Your task to perform on an android device: Open the map Image 0: 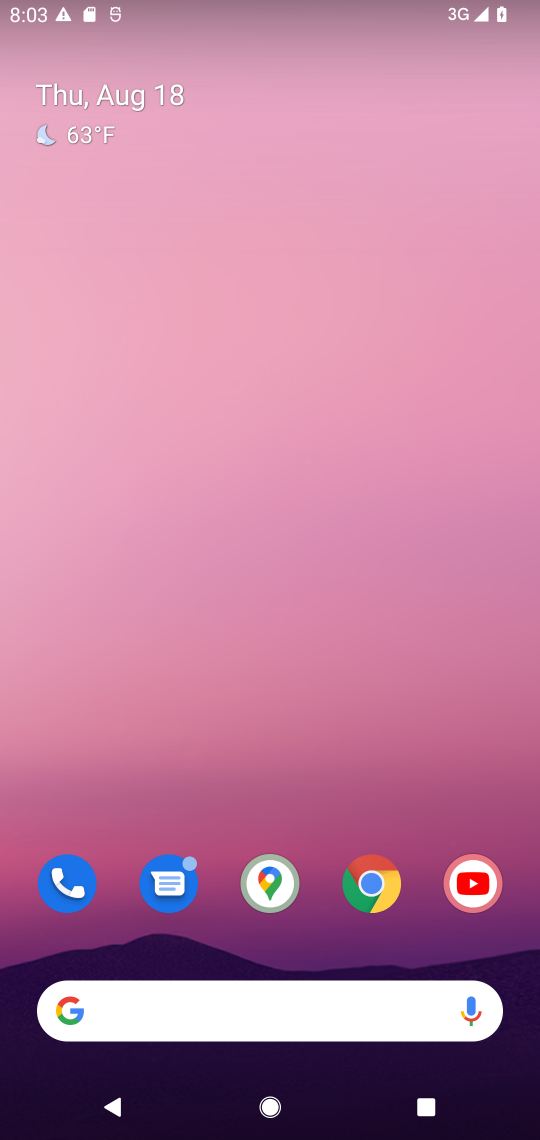
Step 0: click (257, 874)
Your task to perform on an android device: Open the map Image 1: 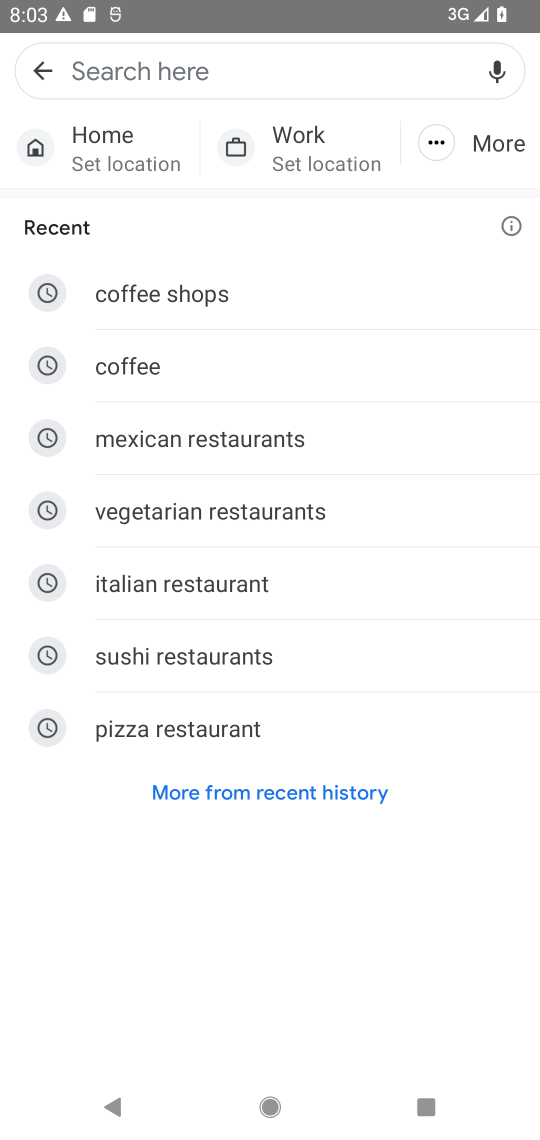
Step 1: task complete